Your task to perform on an android device: Go to CNN.com Image 0: 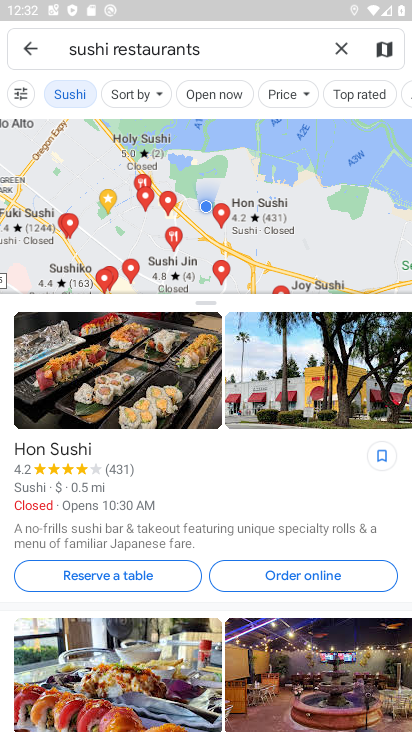
Step 0: press home button
Your task to perform on an android device: Go to CNN.com Image 1: 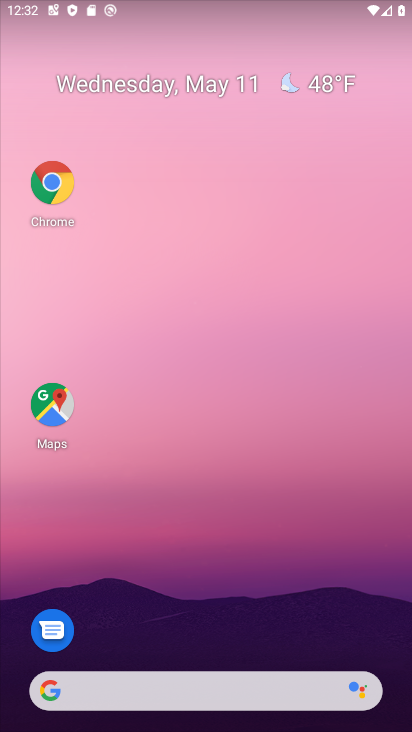
Step 1: drag from (197, 660) to (86, 8)
Your task to perform on an android device: Go to CNN.com Image 2: 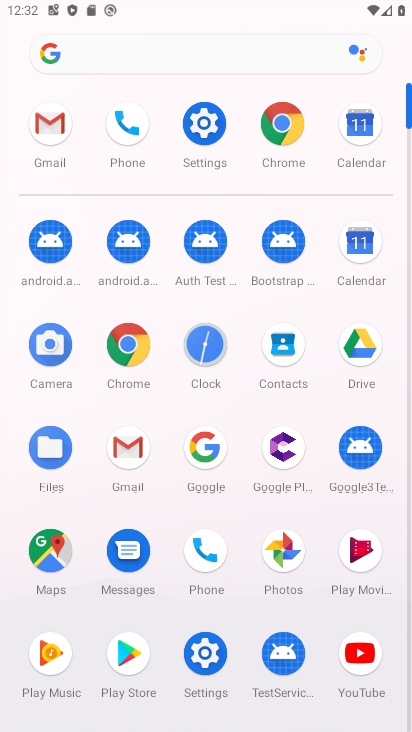
Step 2: click (146, 352)
Your task to perform on an android device: Go to CNN.com Image 3: 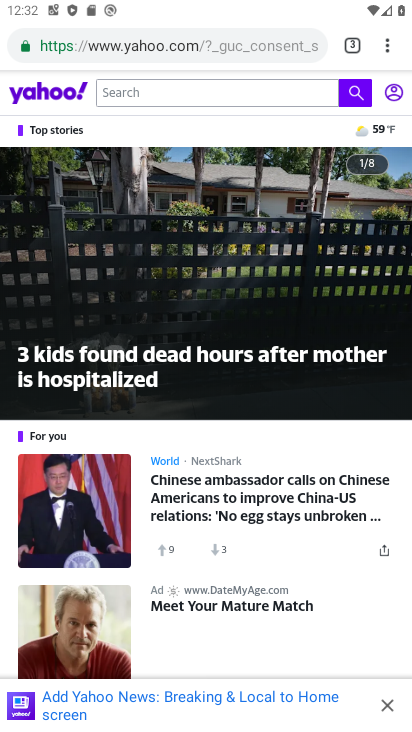
Step 3: click (349, 41)
Your task to perform on an android device: Go to CNN.com Image 4: 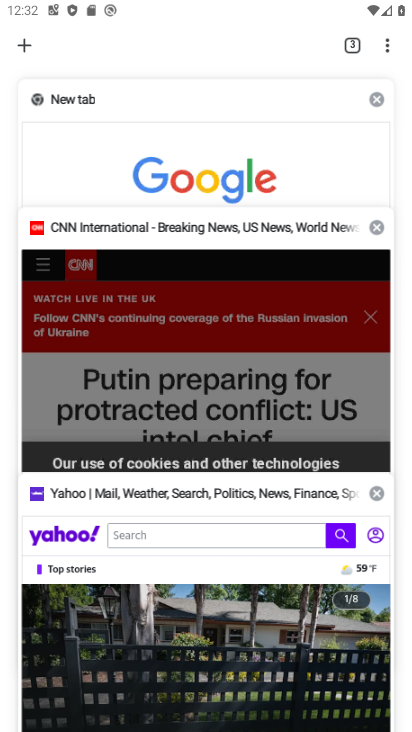
Step 4: click (105, 298)
Your task to perform on an android device: Go to CNN.com Image 5: 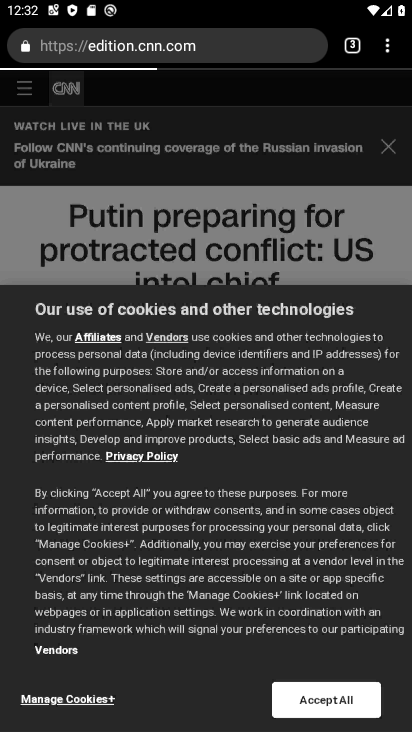
Step 5: task complete